Your task to perform on an android device: remove spam from my inbox in the gmail app Image 0: 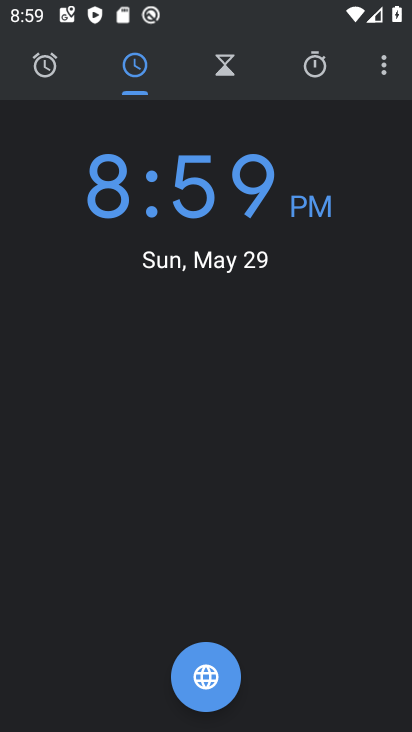
Step 0: press back button
Your task to perform on an android device: remove spam from my inbox in the gmail app Image 1: 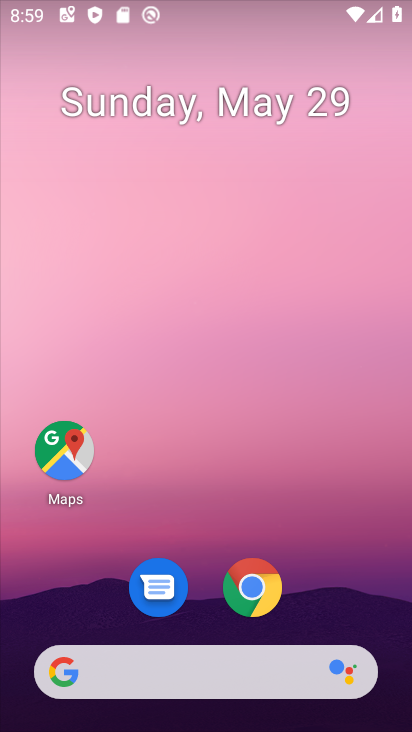
Step 1: drag from (253, 511) to (281, 60)
Your task to perform on an android device: remove spam from my inbox in the gmail app Image 2: 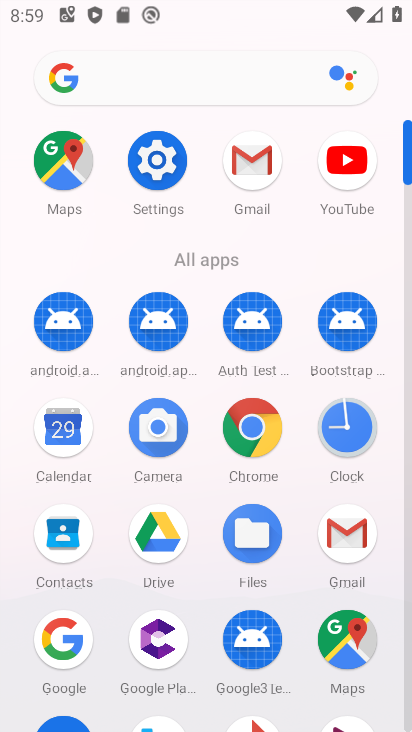
Step 2: click (244, 161)
Your task to perform on an android device: remove spam from my inbox in the gmail app Image 3: 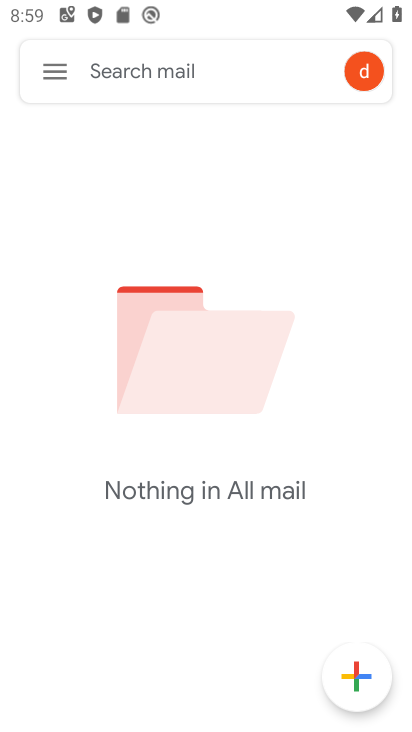
Step 3: click (65, 62)
Your task to perform on an android device: remove spam from my inbox in the gmail app Image 4: 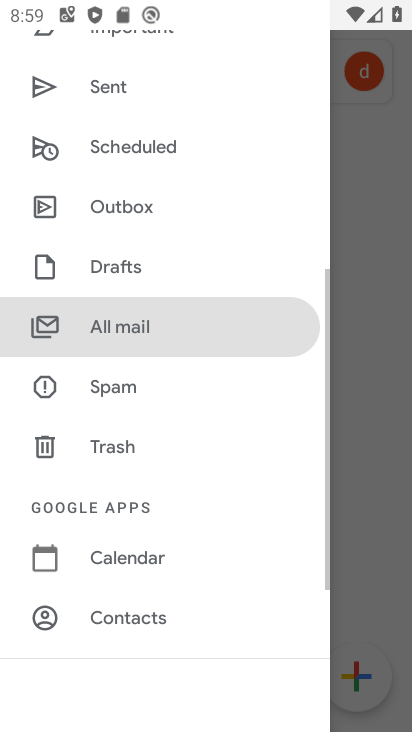
Step 4: click (129, 382)
Your task to perform on an android device: remove spam from my inbox in the gmail app Image 5: 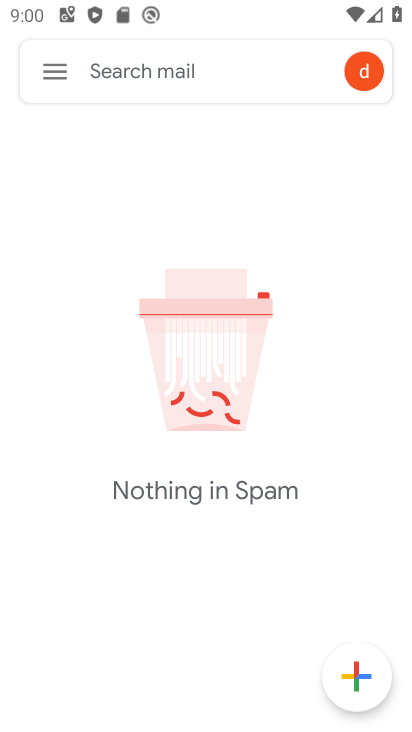
Step 5: task complete